Your task to perform on an android device: all mails in gmail Image 0: 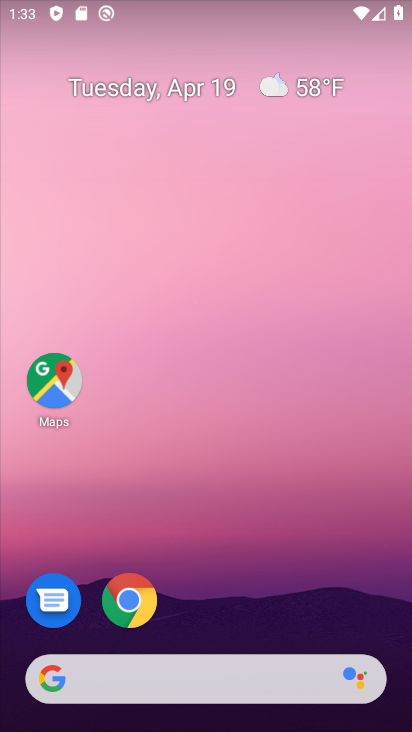
Step 0: drag from (178, 669) to (220, 132)
Your task to perform on an android device: all mails in gmail Image 1: 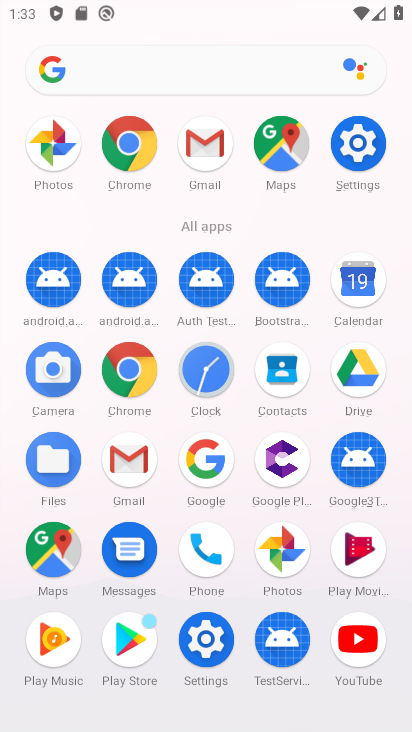
Step 1: click (137, 469)
Your task to perform on an android device: all mails in gmail Image 2: 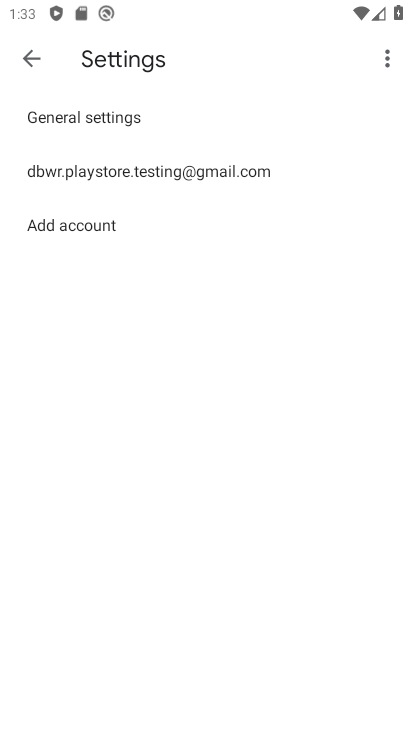
Step 2: press back button
Your task to perform on an android device: all mails in gmail Image 3: 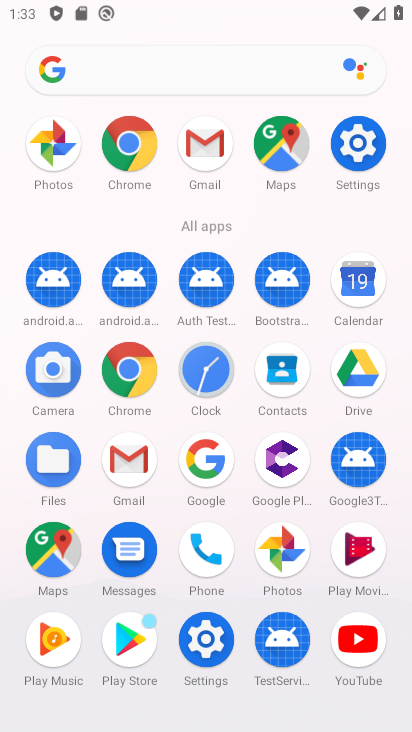
Step 3: click (204, 141)
Your task to perform on an android device: all mails in gmail Image 4: 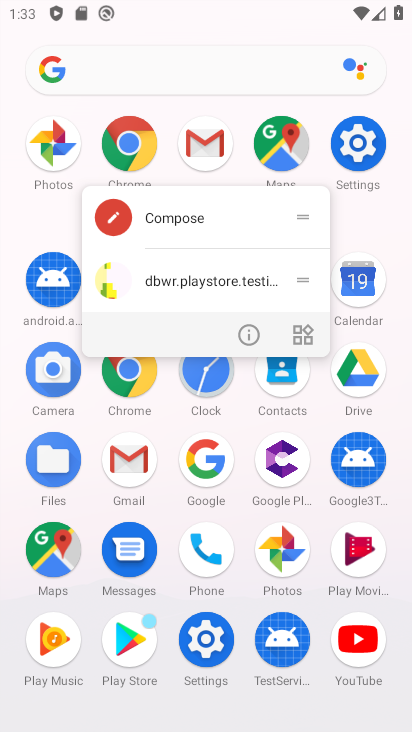
Step 4: click (196, 152)
Your task to perform on an android device: all mails in gmail Image 5: 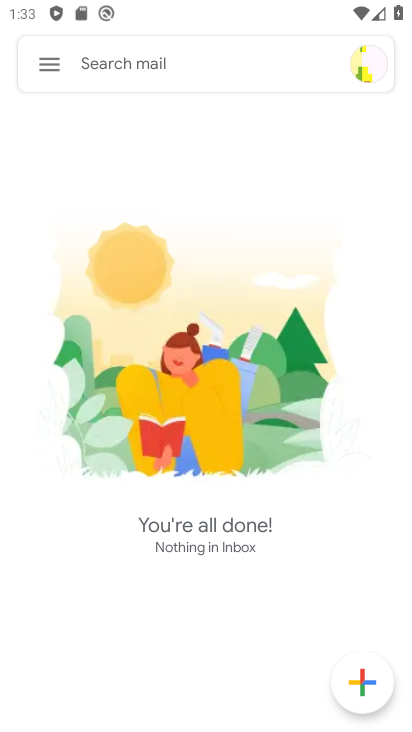
Step 5: click (49, 68)
Your task to perform on an android device: all mails in gmail Image 6: 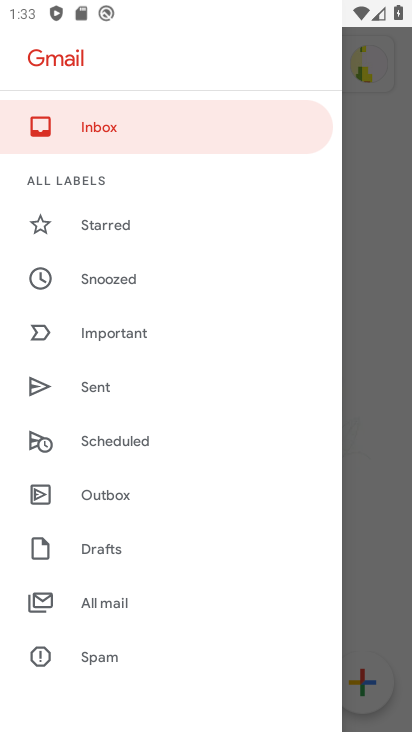
Step 6: click (121, 591)
Your task to perform on an android device: all mails in gmail Image 7: 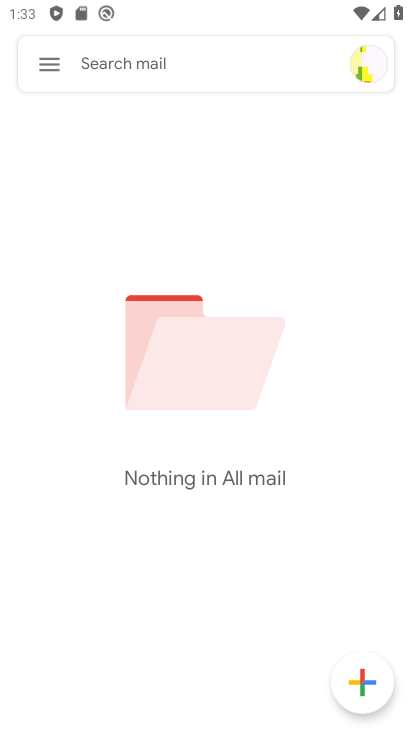
Step 7: task complete